Your task to perform on an android device: turn on airplane mode Image 0: 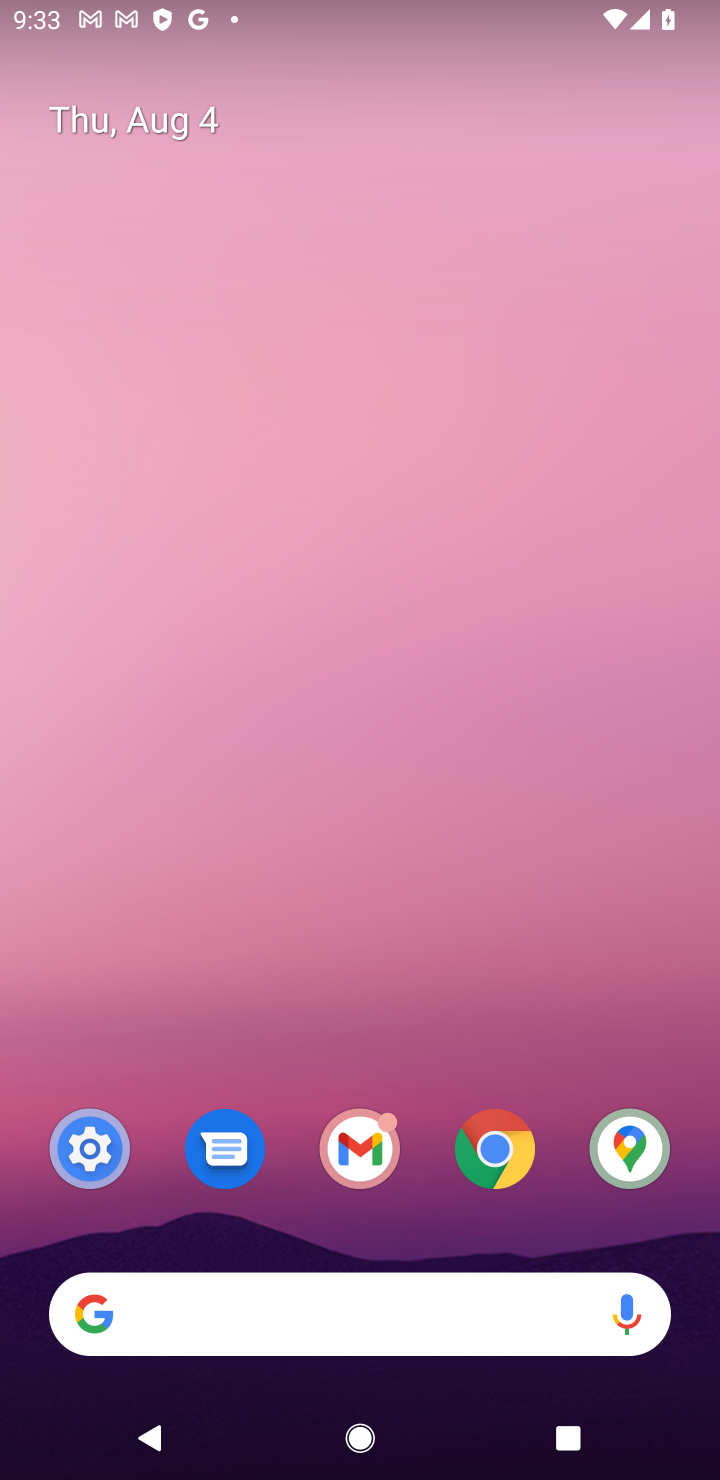
Step 0: drag from (580, 1227) to (440, 33)
Your task to perform on an android device: turn on airplane mode Image 1: 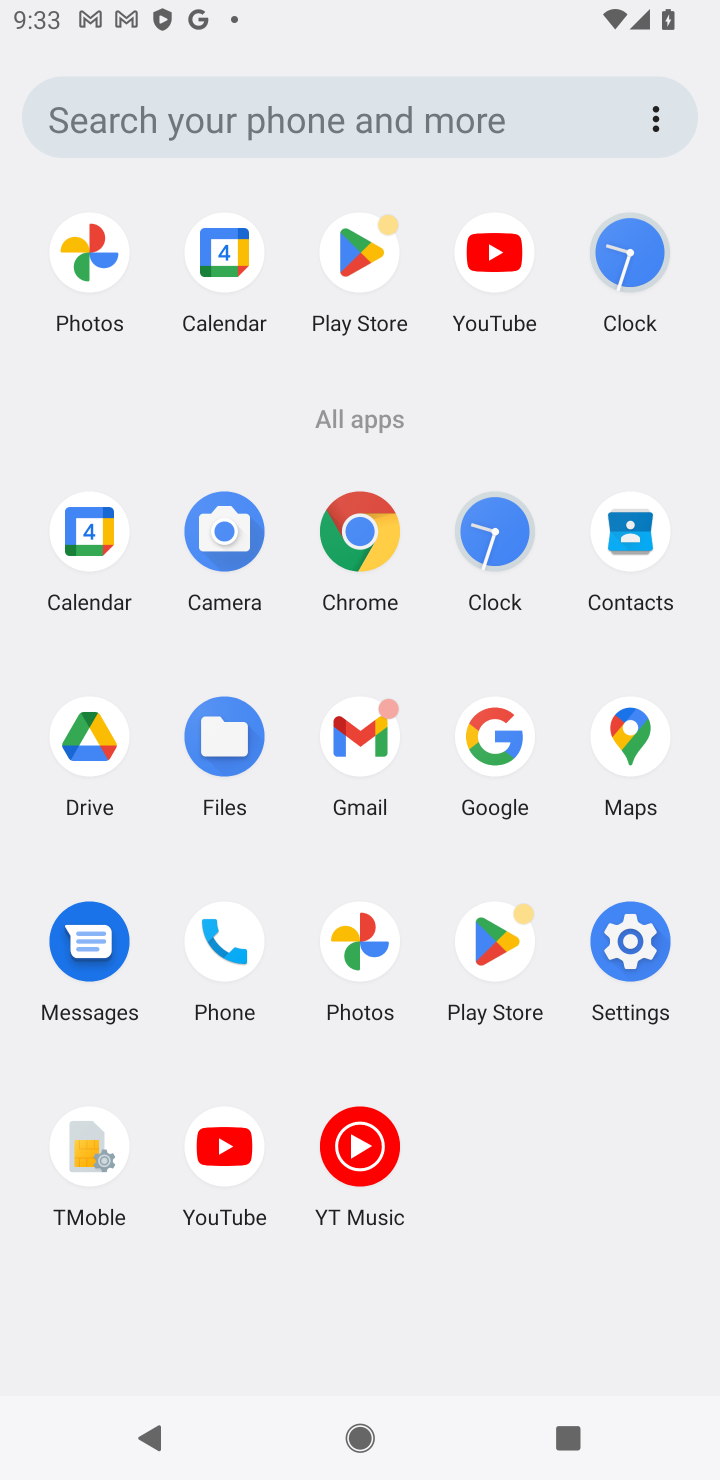
Step 1: click (623, 944)
Your task to perform on an android device: turn on airplane mode Image 2: 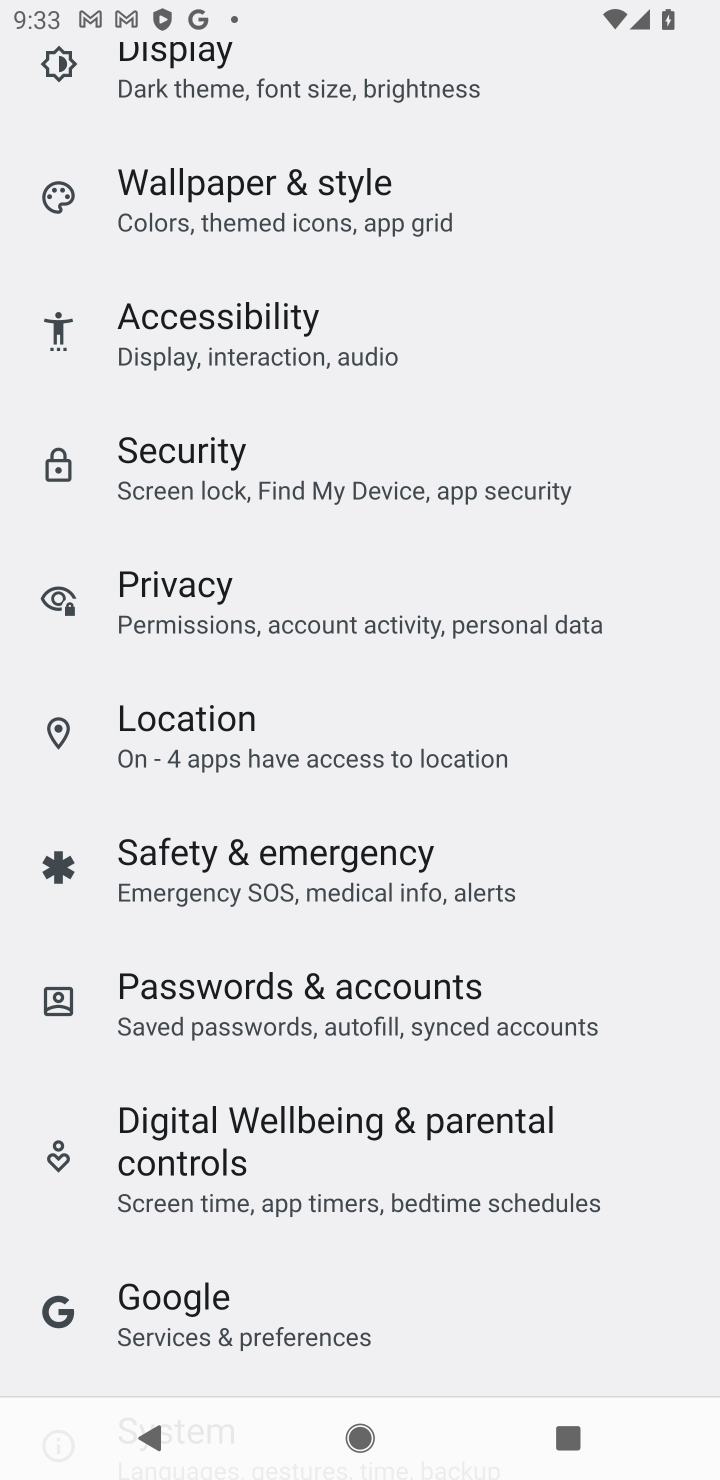
Step 2: drag from (551, 263) to (599, 942)
Your task to perform on an android device: turn on airplane mode Image 3: 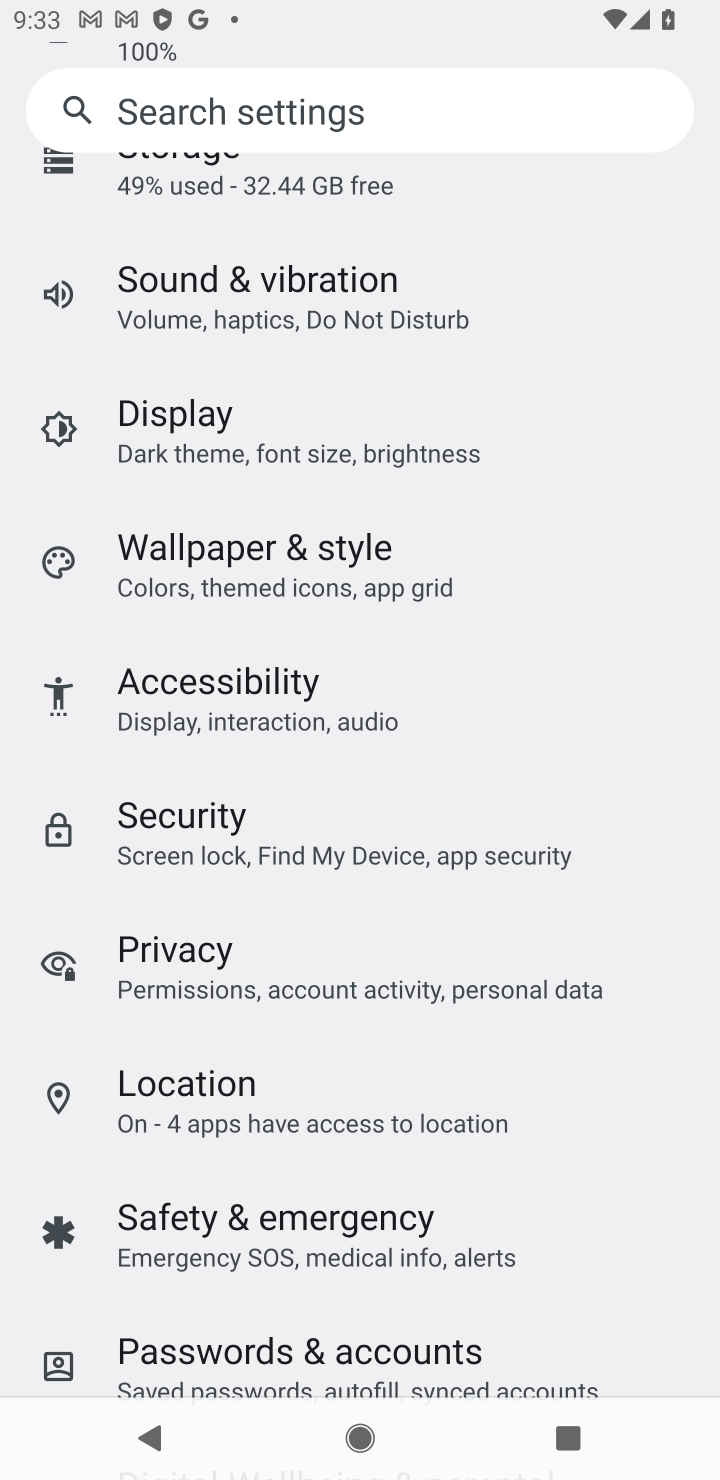
Step 3: drag from (582, 300) to (646, 1022)
Your task to perform on an android device: turn on airplane mode Image 4: 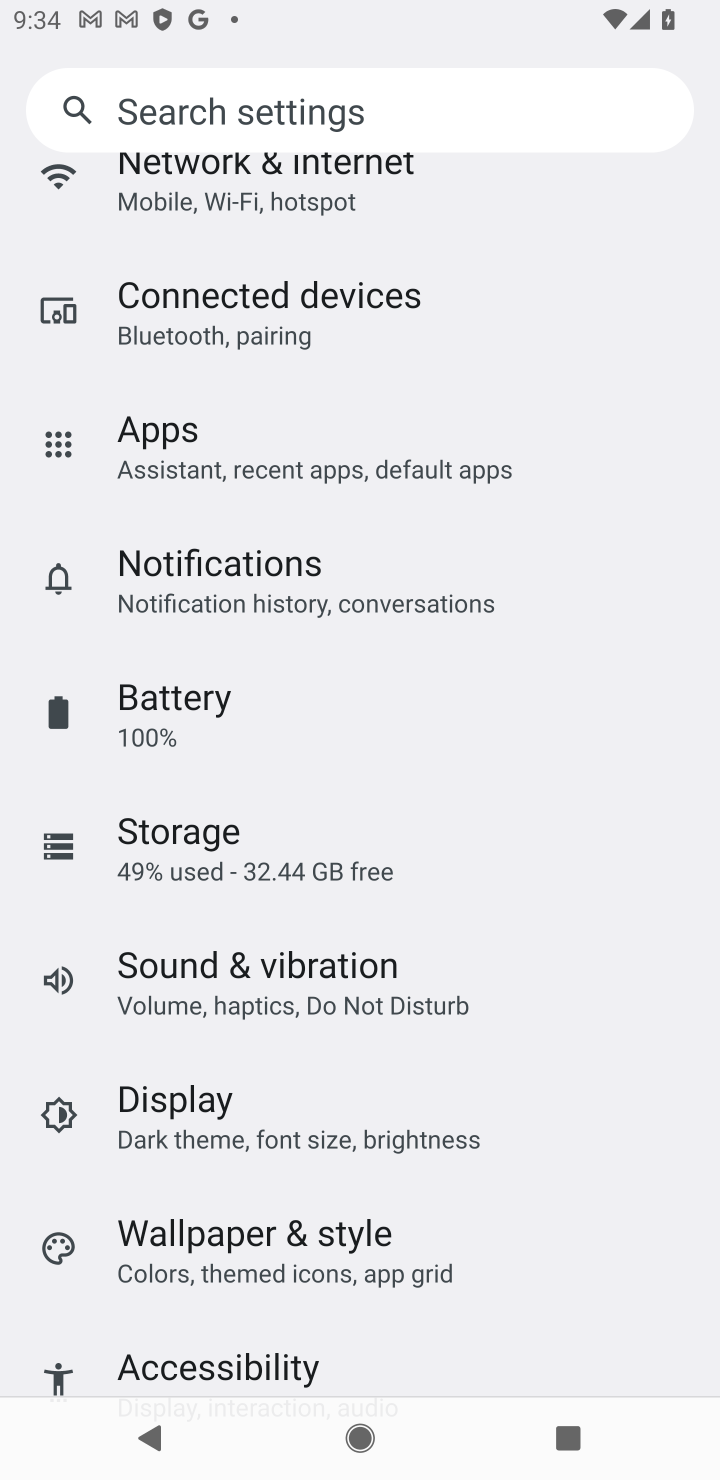
Step 4: drag from (561, 353) to (534, 529)
Your task to perform on an android device: turn on airplane mode Image 5: 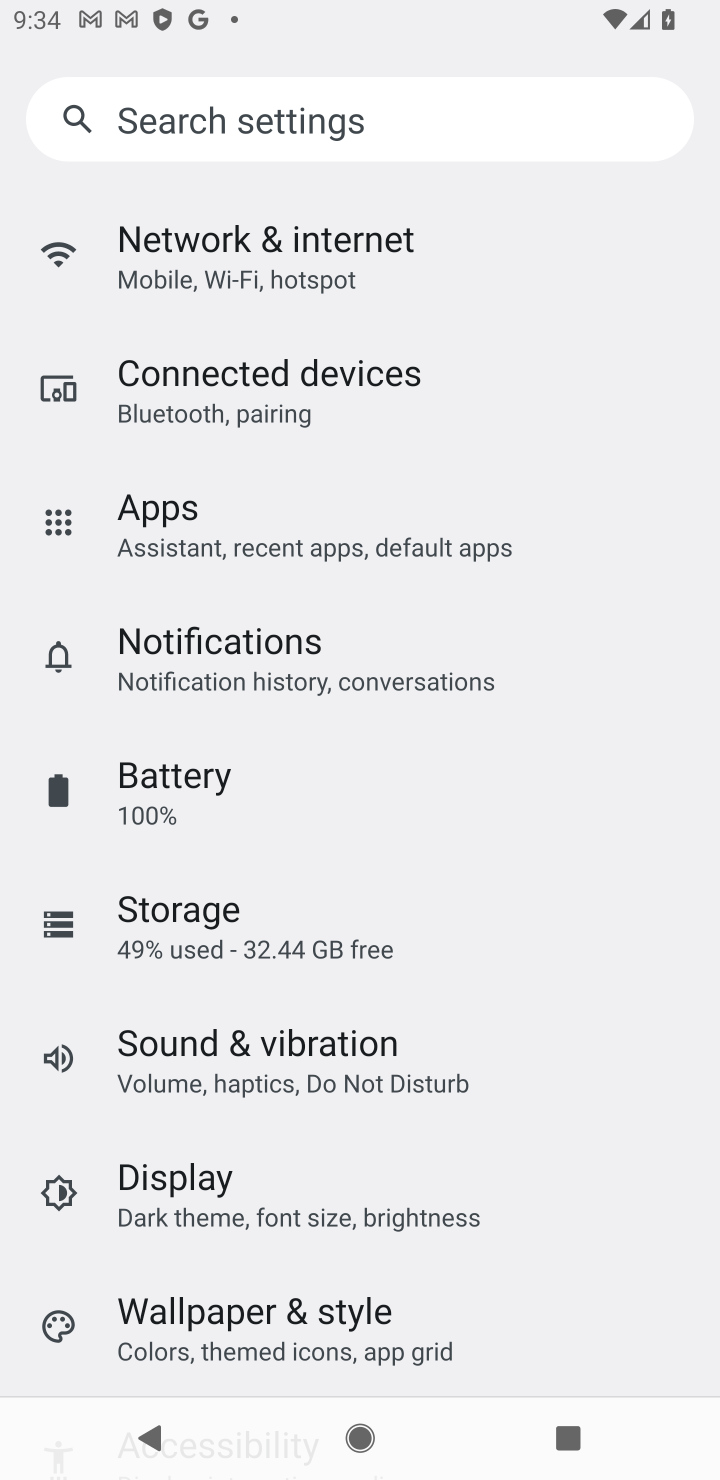
Step 5: click (208, 254)
Your task to perform on an android device: turn on airplane mode Image 6: 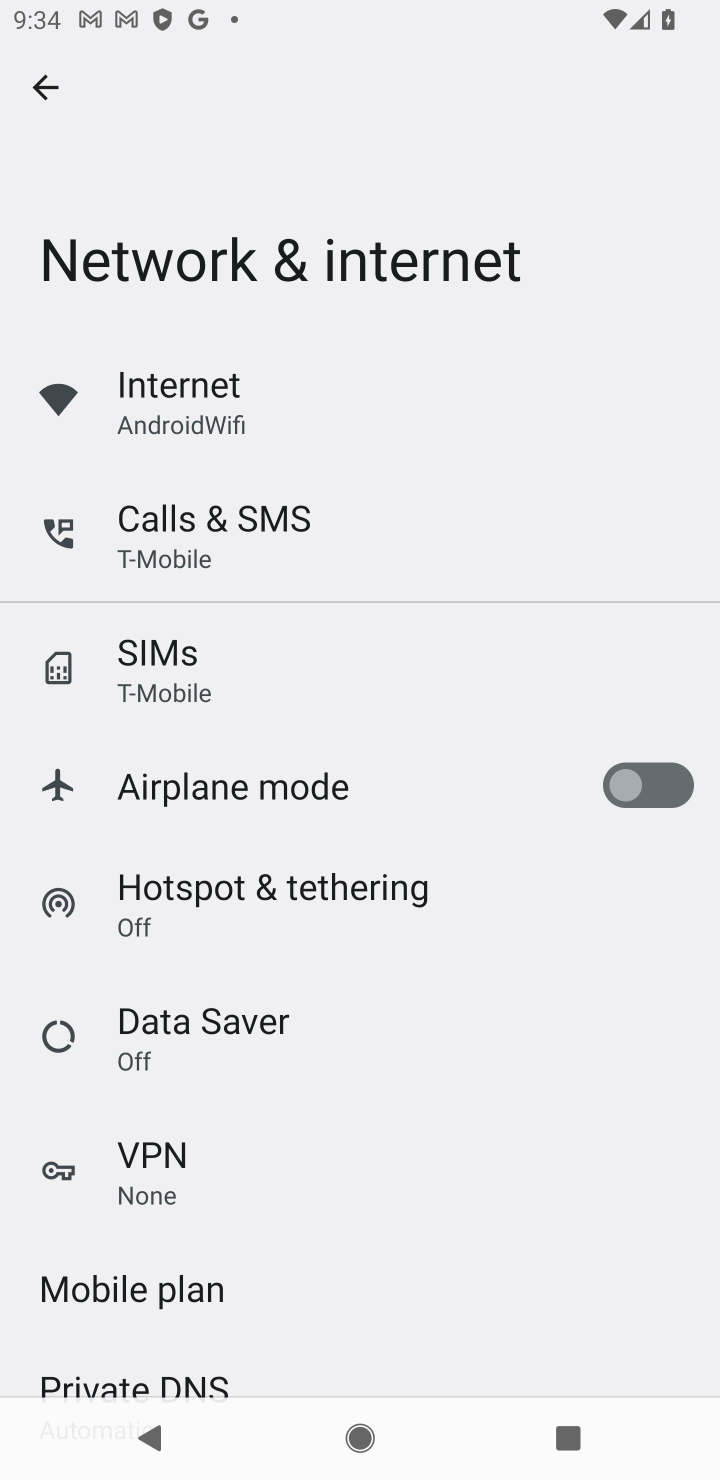
Step 6: click (662, 780)
Your task to perform on an android device: turn on airplane mode Image 7: 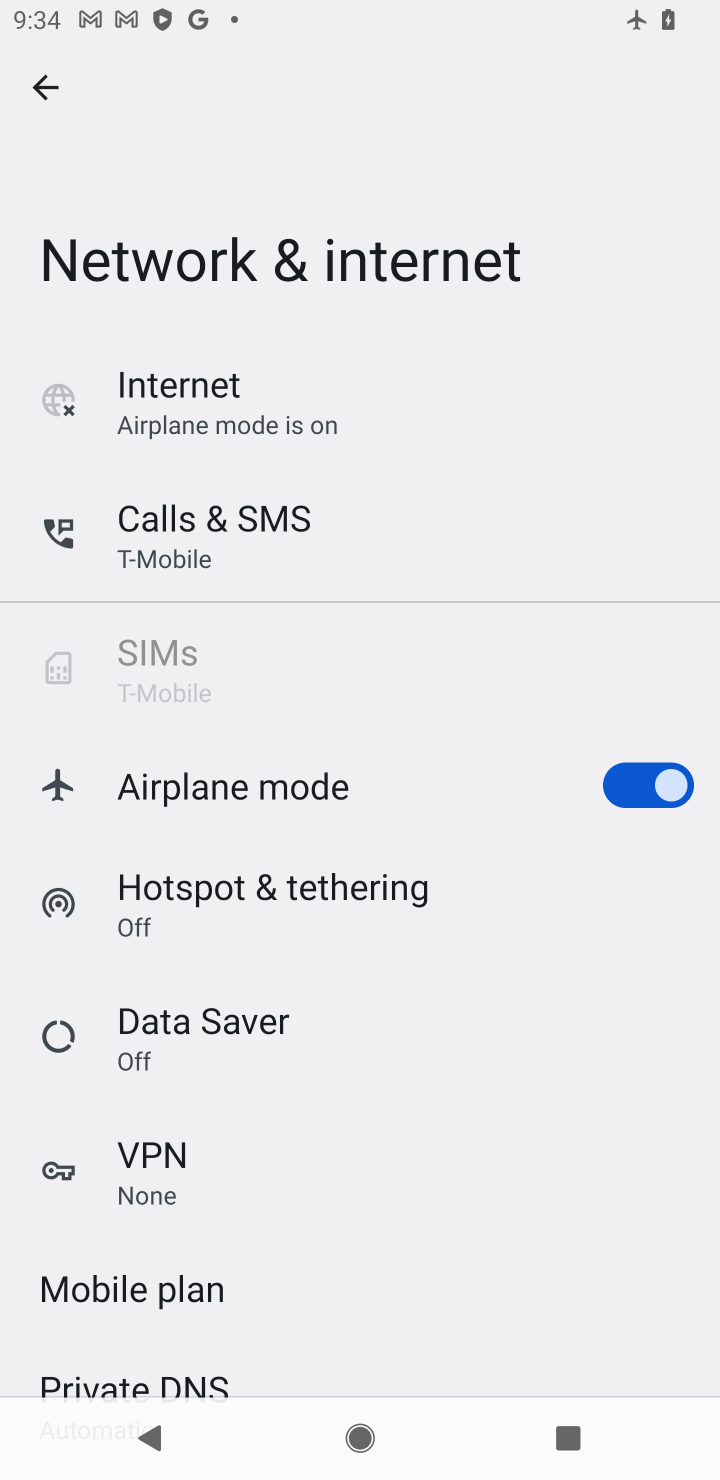
Step 7: task complete